Your task to perform on an android device: Open display settings Image 0: 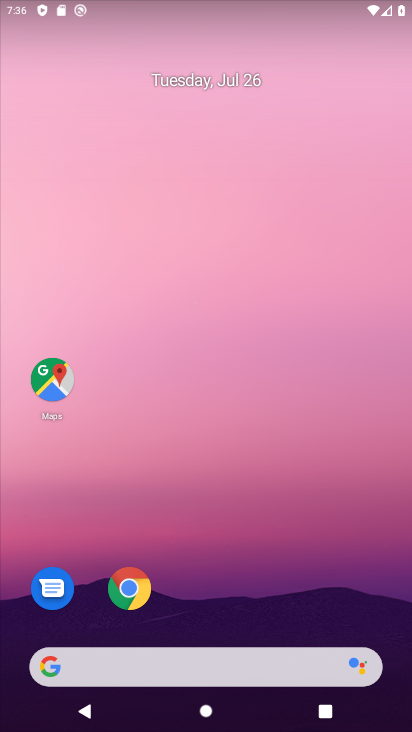
Step 0: drag from (160, 650) to (65, 6)
Your task to perform on an android device: Open display settings Image 1: 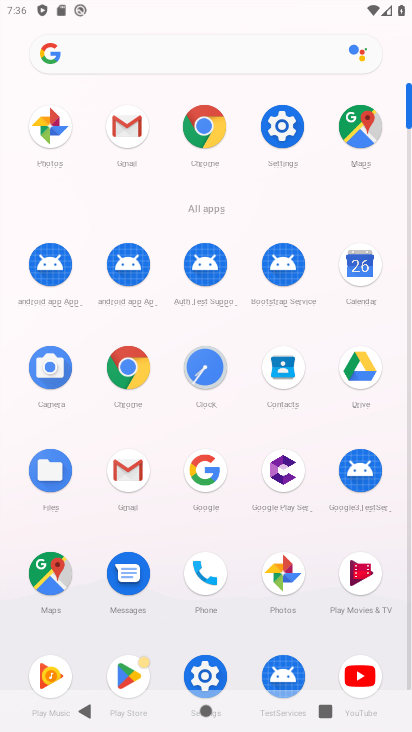
Step 1: click (274, 123)
Your task to perform on an android device: Open display settings Image 2: 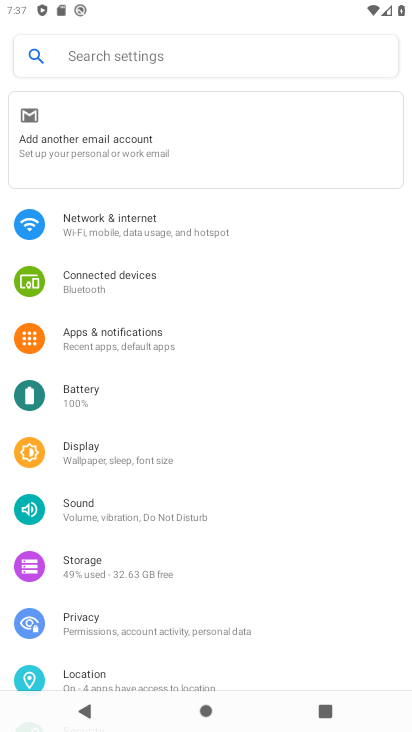
Step 2: click (60, 446)
Your task to perform on an android device: Open display settings Image 3: 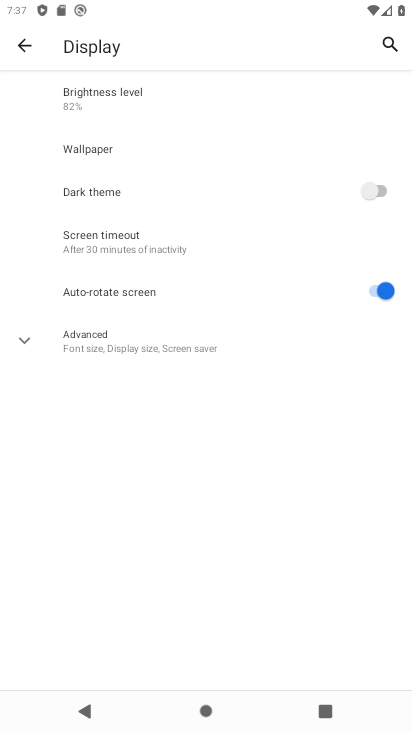
Step 3: click (175, 345)
Your task to perform on an android device: Open display settings Image 4: 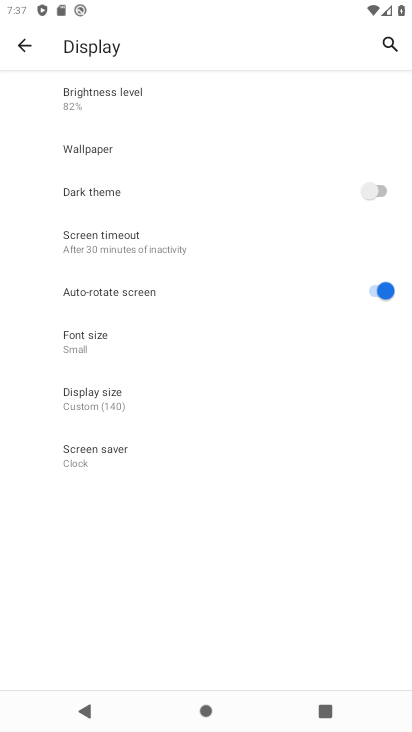
Step 4: task complete